Your task to perform on an android device: Toggle the flashlight Image 0: 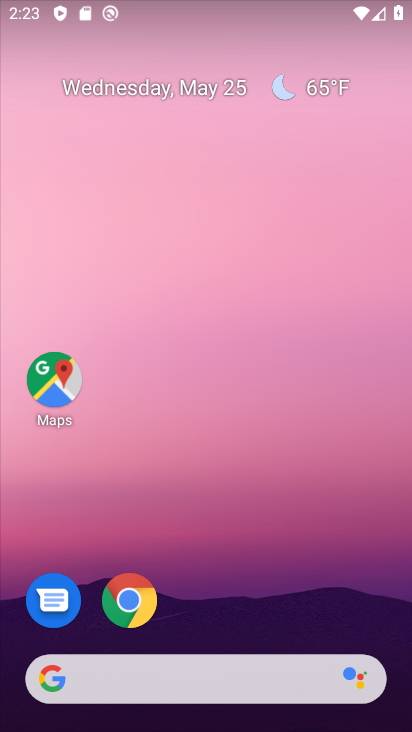
Step 0: drag from (255, 572) to (214, 214)
Your task to perform on an android device: Toggle the flashlight Image 1: 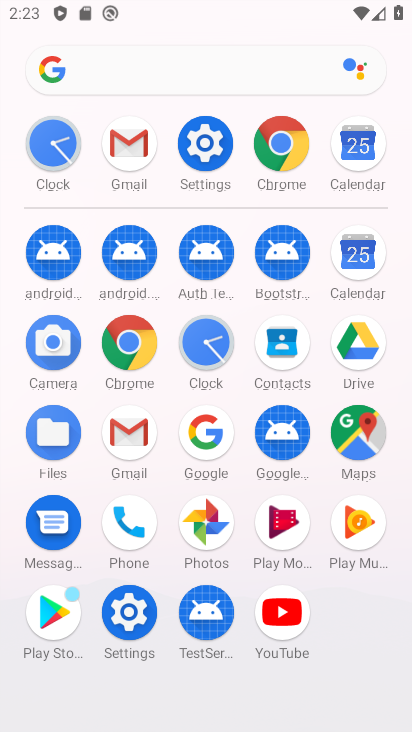
Step 1: click (184, 140)
Your task to perform on an android device: Toggle the flashlight Image 2: 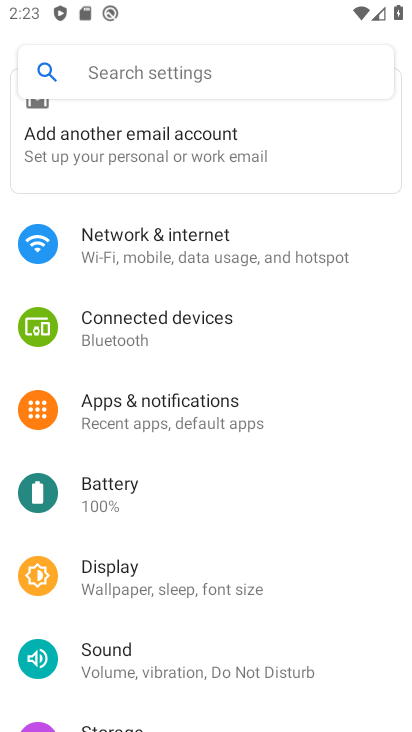
Step 2: click (120, 567)
Your task to perform on an android device: Toggle the flashlight Image 3: 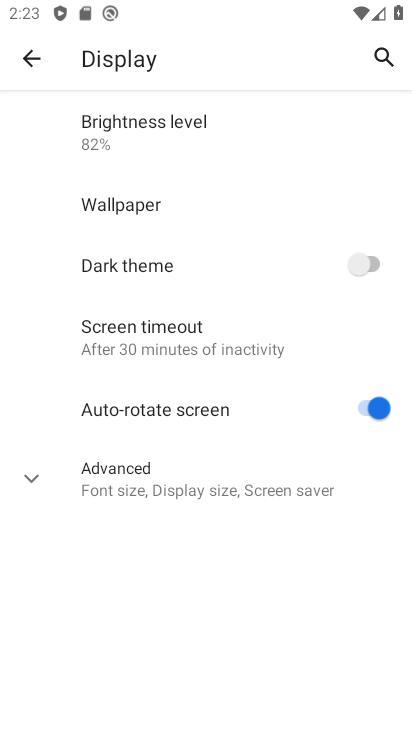
Step 3: task complete